Your task to perform on an android device: Open settings on Google Maps Image 0: 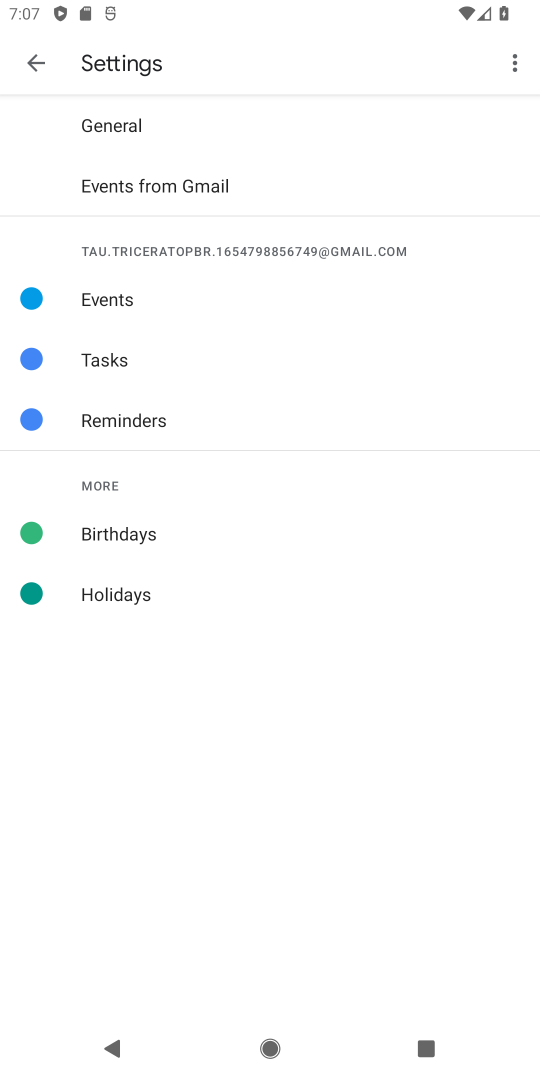
Step 0: press back button
Your task to perform on an android device: Open settings on Google Maps Image 1: 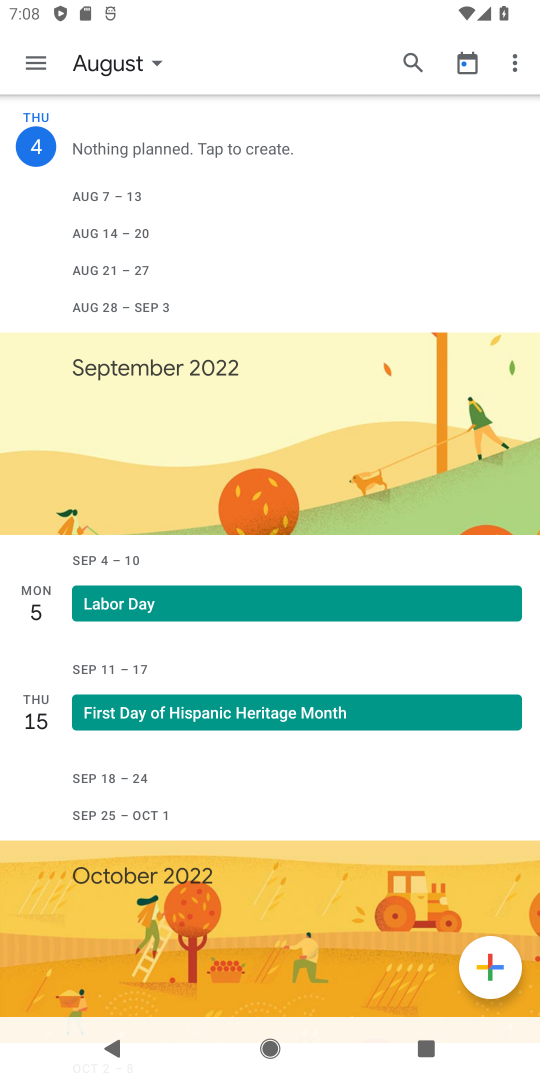
Step 1: press back button
Your task to perform on an android device: Open settings on Google Maps Image 2: 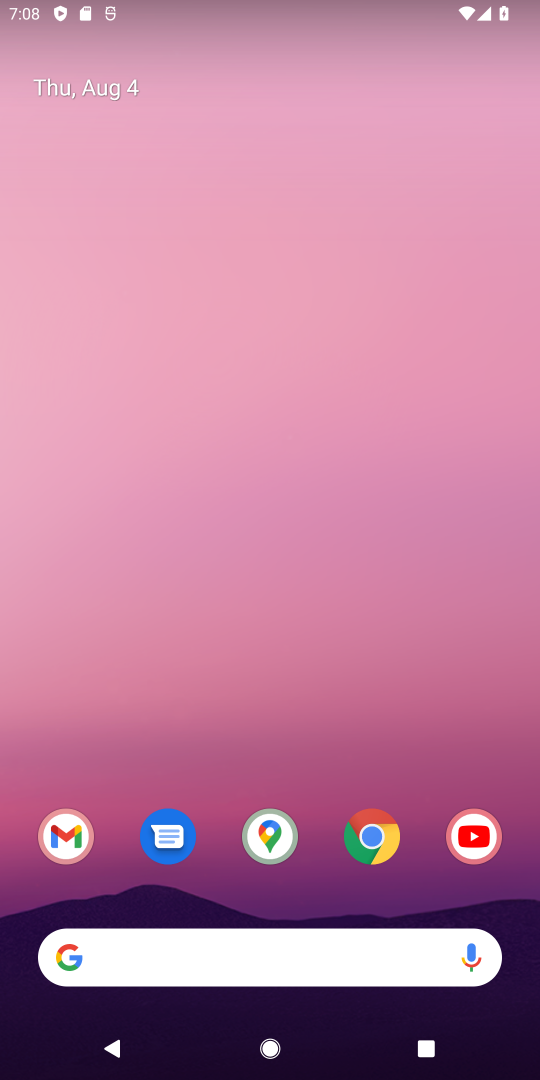
Step 2: click (275, 836)
Your task to perform on an android device: Open settings on Google Maps Image 3: 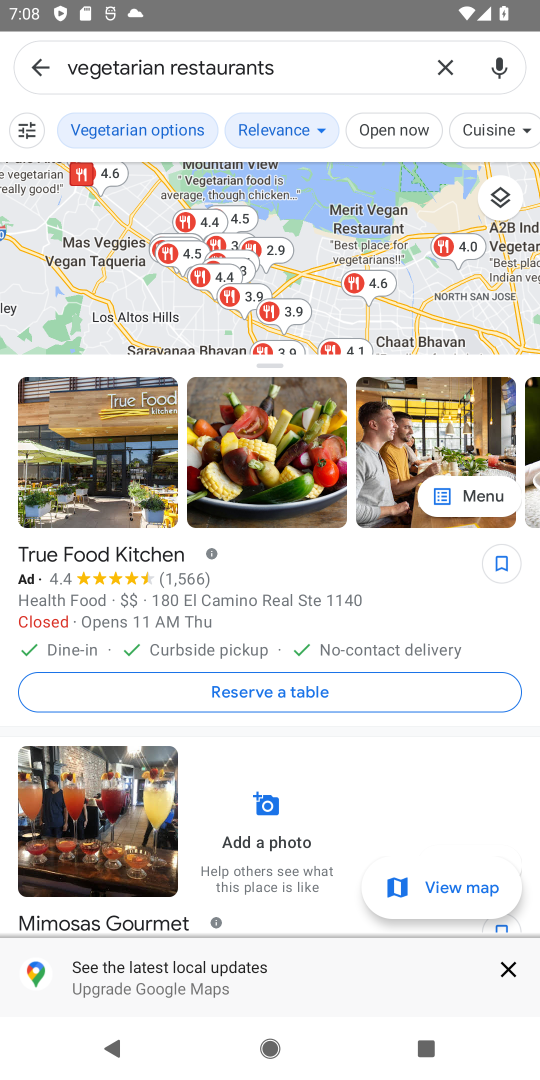
Step 3: click (30, 63)
Your task to perform on an android device: Open settings on Google Maps Image 4: 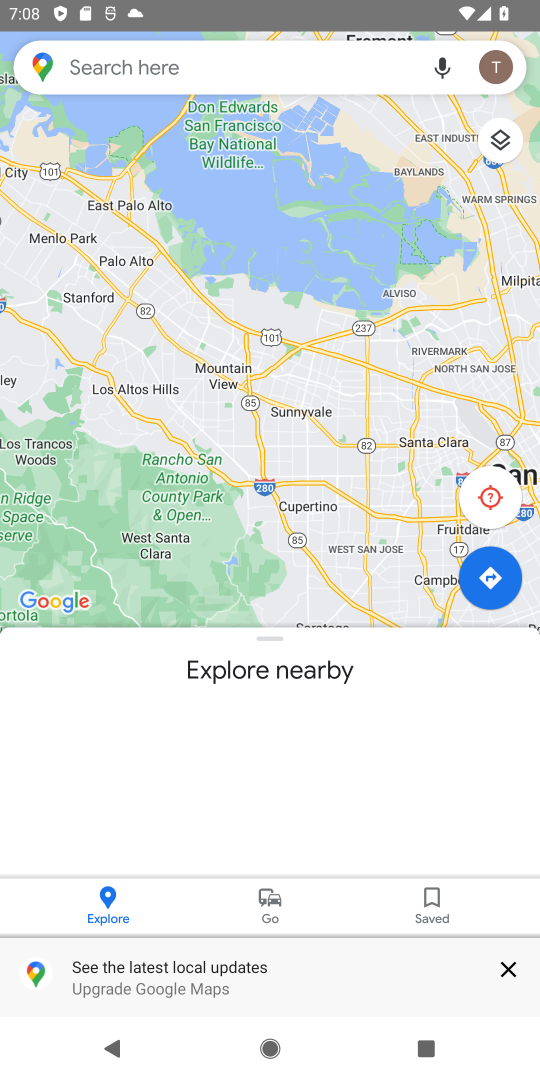
Step 4: click (50, 53)
Your task to perform on an android device: Open settings on Google Maps Image 5: 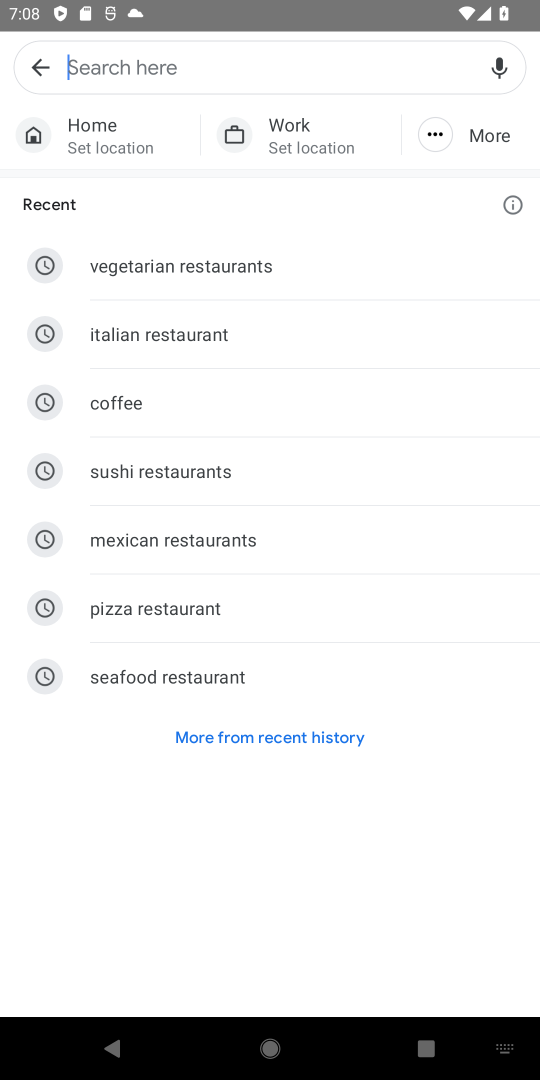
Step 5: click (48, 61)
Your task to perform on an android device: Open settings on Google Maps Image 6: 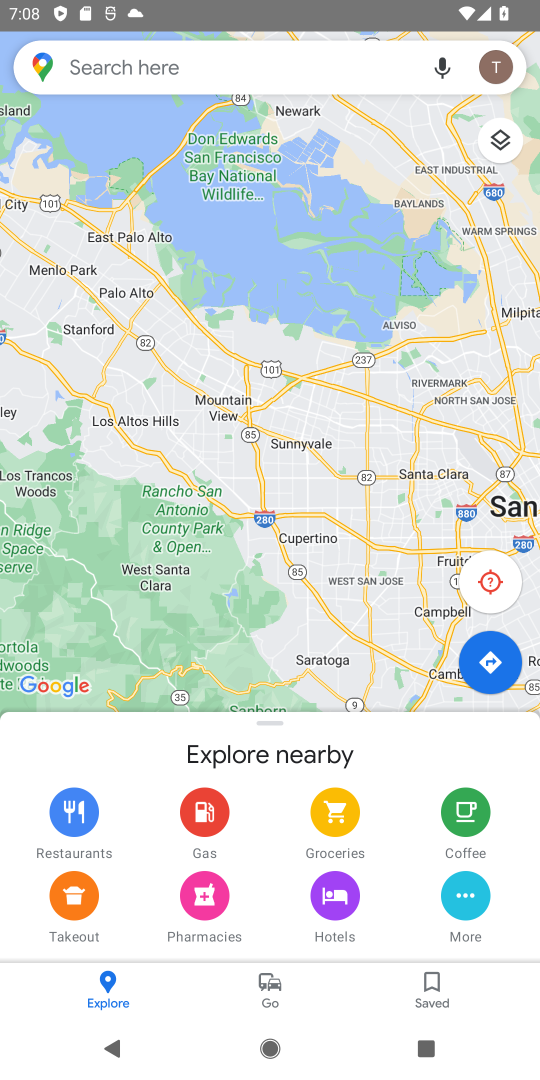
Step 6: click (499, 64)
Your task to perform on an android device: Open settings on Google Maps Image 7: 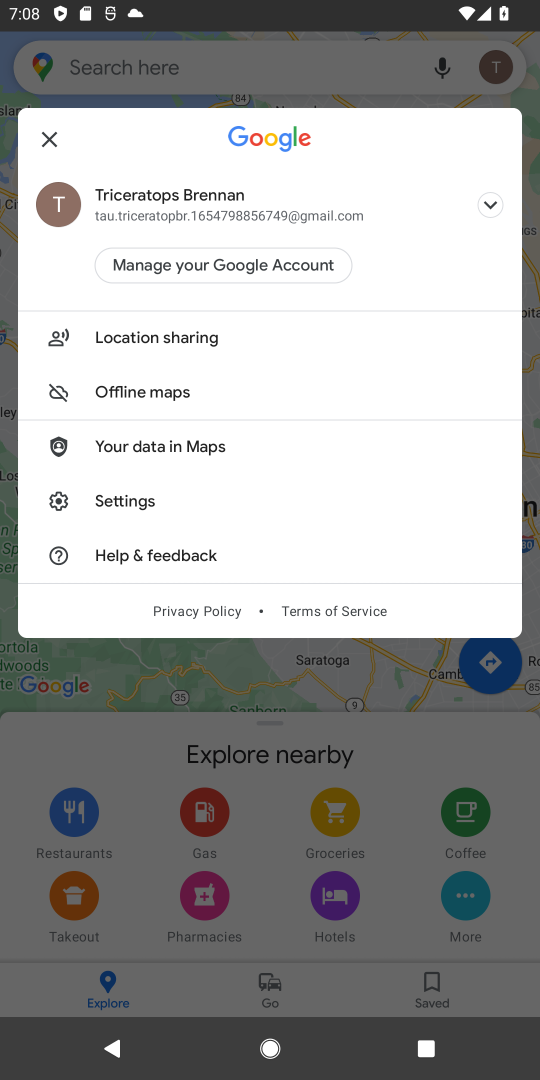
Step 7: click (144, 492)
Your task to perform on an android device: Open settings on Google Maps Image 8: 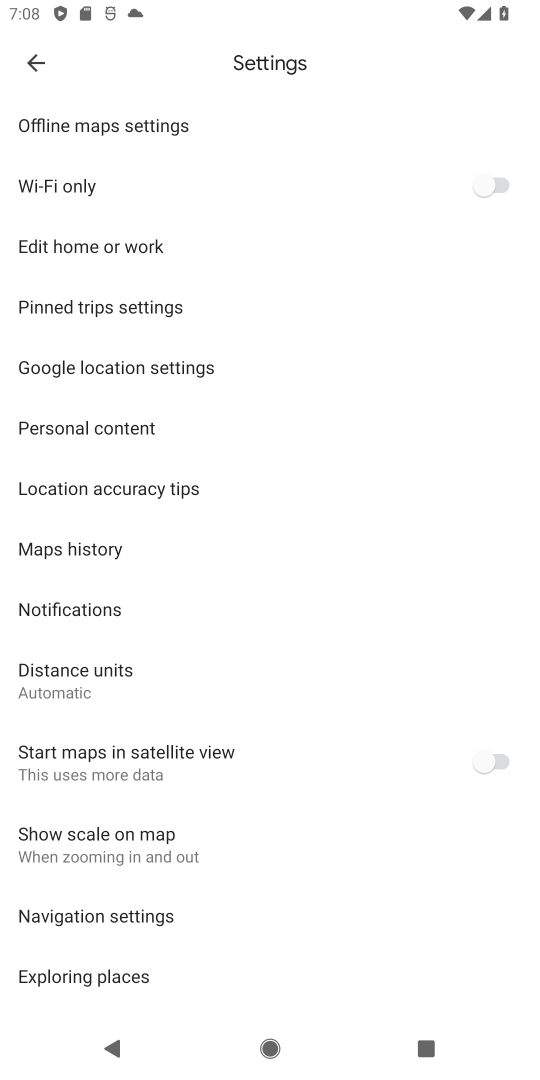
Step 8: task complete